Your task to perform on an android device: set the timer Image 0: 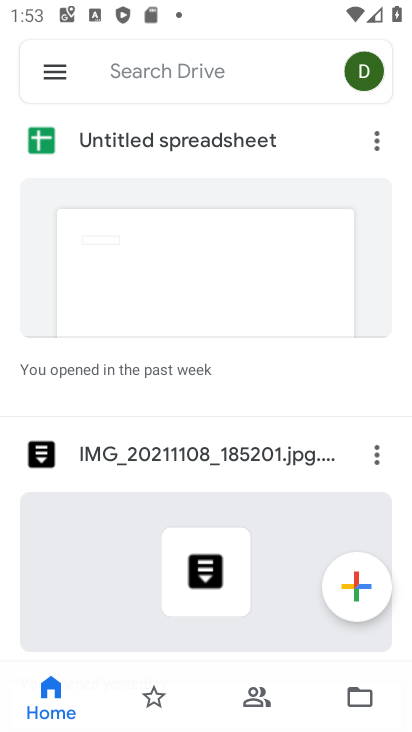
Step 0: press home button
Your task to perform on an android device: set the timer Image 1: 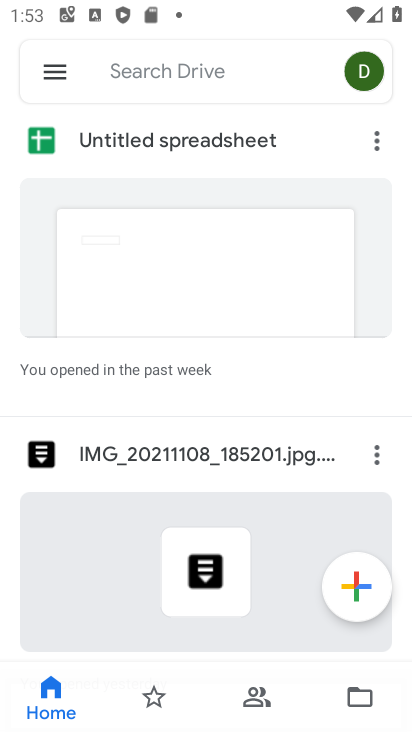
Step 1: press home button
Your task to perform on an android device: set the timer Image 2: 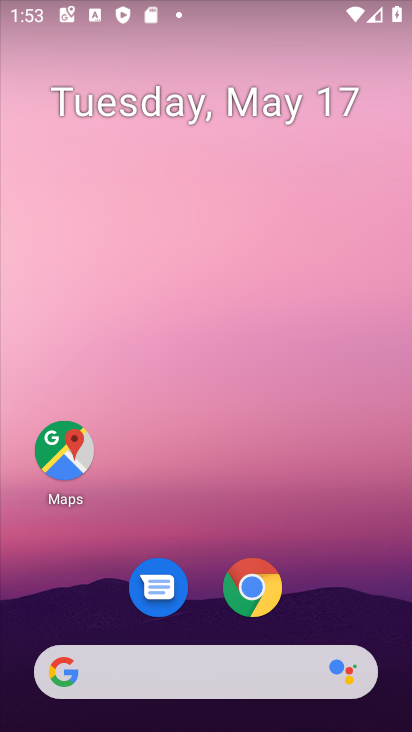
Step 2: drag from (192, 619) to (286, 131)
Your task to perform on an android device: set the timer Image 3: 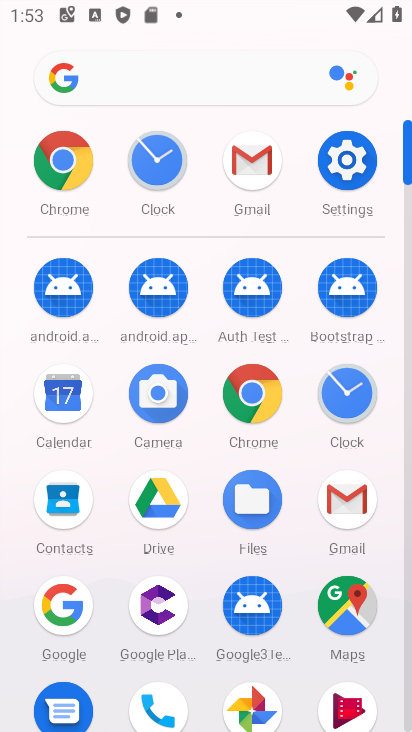
Step 3: click (353, 394)
Your task to perform on an android device: set the timer Image 4: 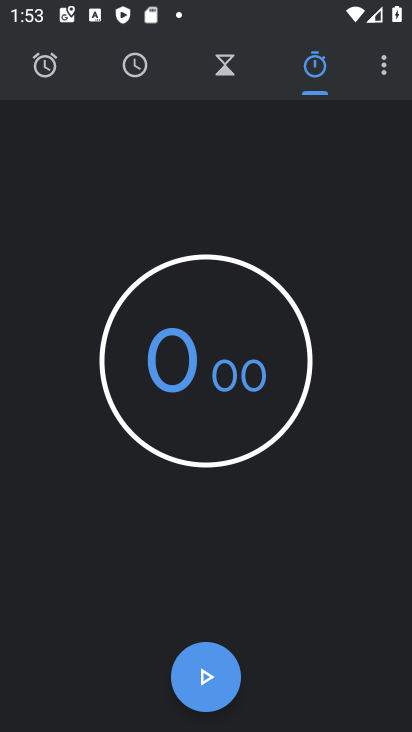
Step 4: click (381, 68)
Your task to perform on an android device: set the timer Image 5: 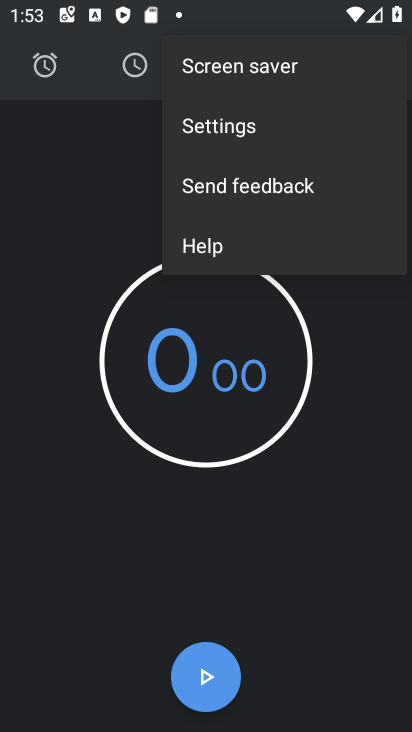
Step 5: click (83, 81)
Your task to perform on an android device: set the timer Image 6: 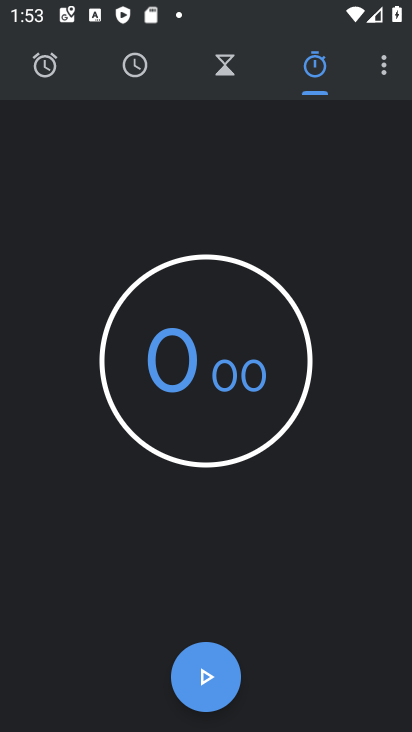
Step 6: click (206, 67)
Your task to perform on an android device: set the timer Image 7: 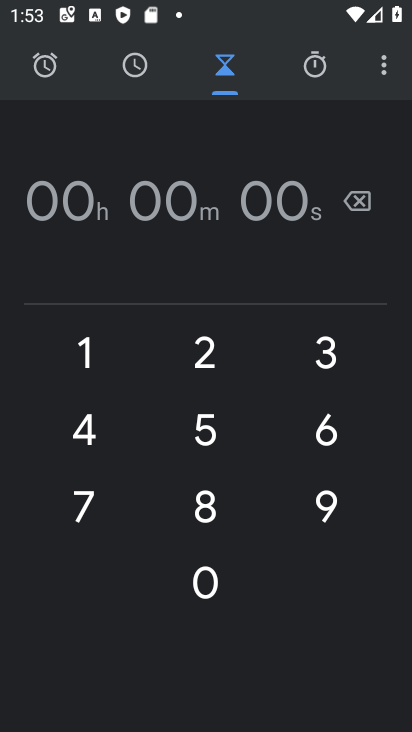
Step 7: click (203, 413)
Your task to perform on an android device: set the timer Image 8: 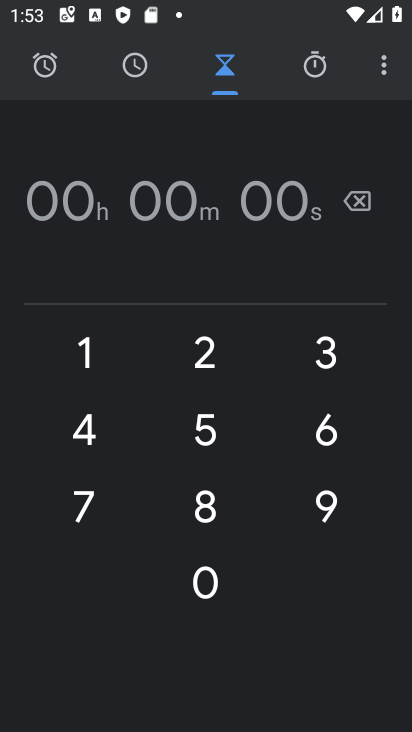
Step 8: click (205, 364)
Your task to perform on an android device: set the timer Image 9: 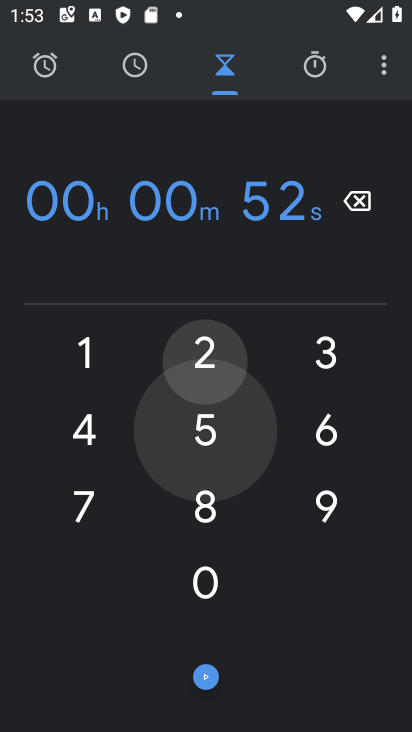
Step 9: click (360, 363)
Your task to perform on an android device: set the timer Image 10: 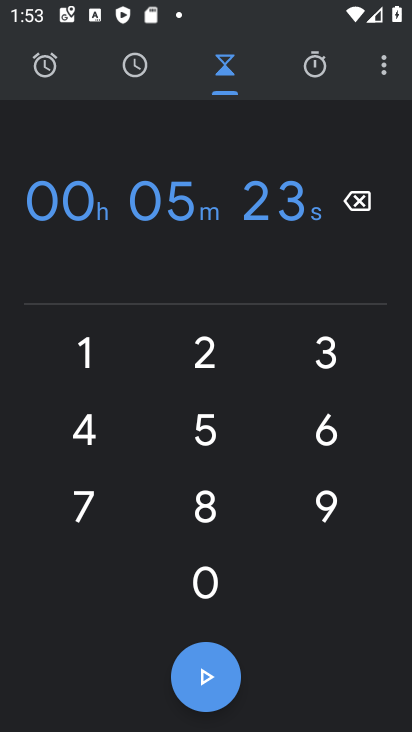
Step 10: click (211, 675)
Your task to perform on an android device: set the timer Image 11: 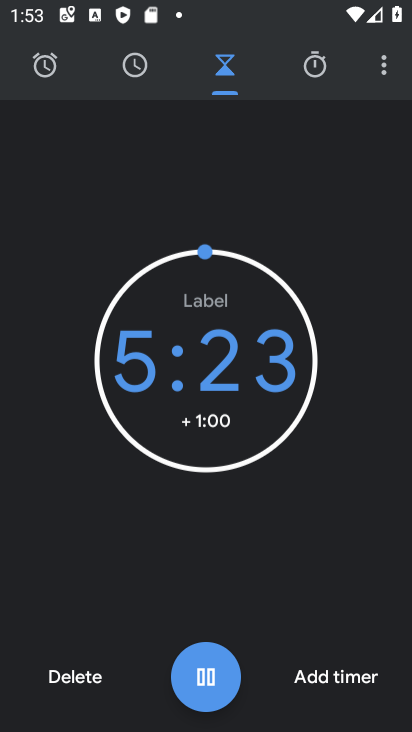
Step 11: task complete